Your task to perform on an android device: What is the recent news? Image 0: 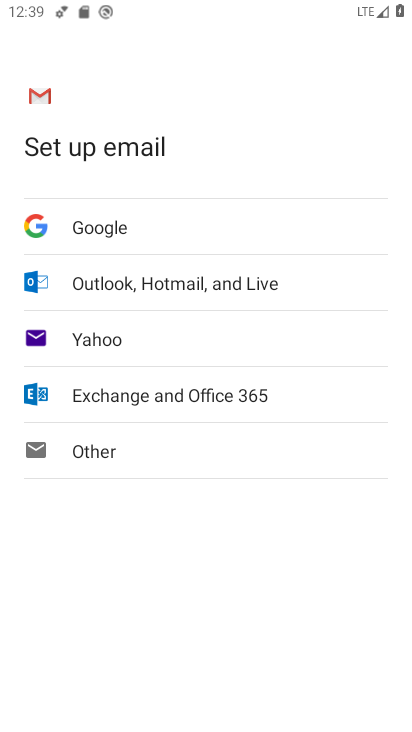
Step 0: press home button
Your task to perform on an android device: What is the recent news? Image 1: 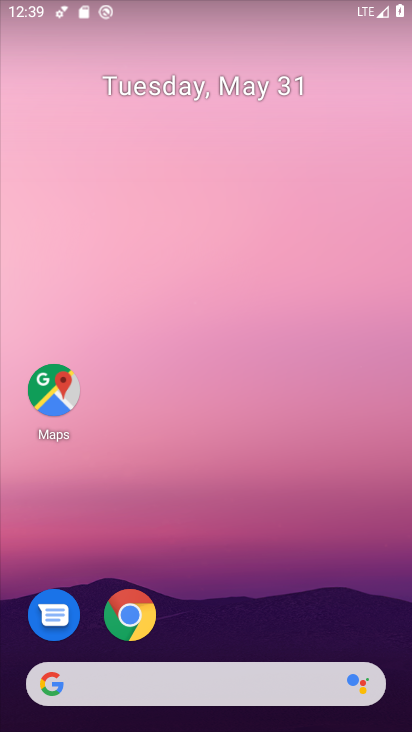
Step 1: drag from (198, 564) to (142, 7)
Your task to perform on an android device: What is the recent news? Image 2: 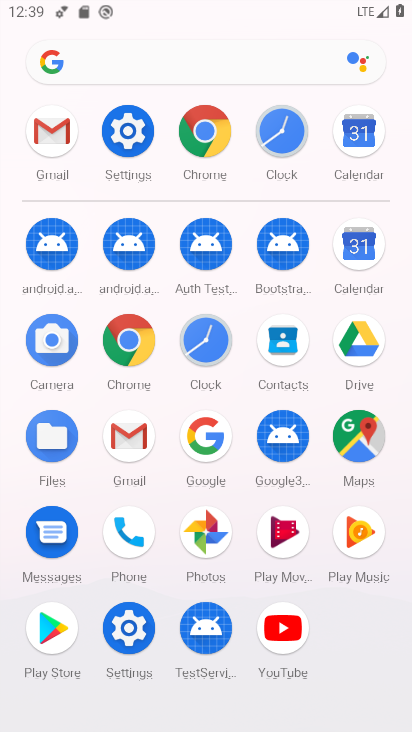
Step 2: click (194, 58)
Your task to perform on an android device: What is the recent news? Image 3: 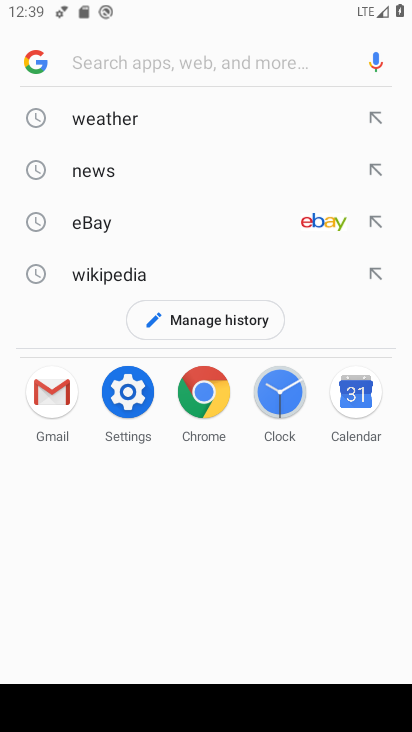
Step 3: type "recent news"
Your task to perform on an android device: What is the recent news? Image 4: 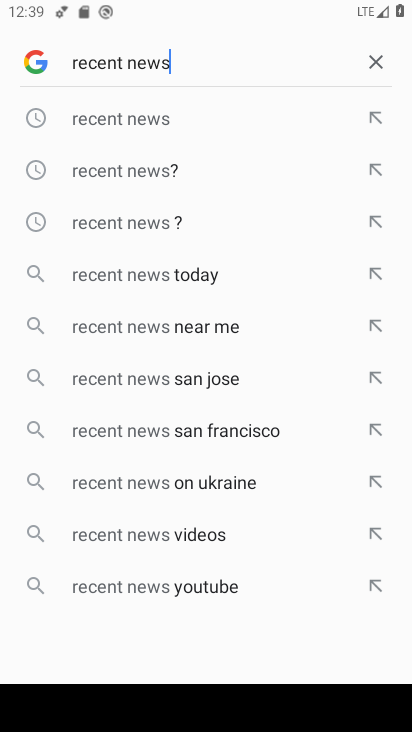
Step 4: click (185, 178)
Your task to perform on an android device: What is the recent news? Image 5: 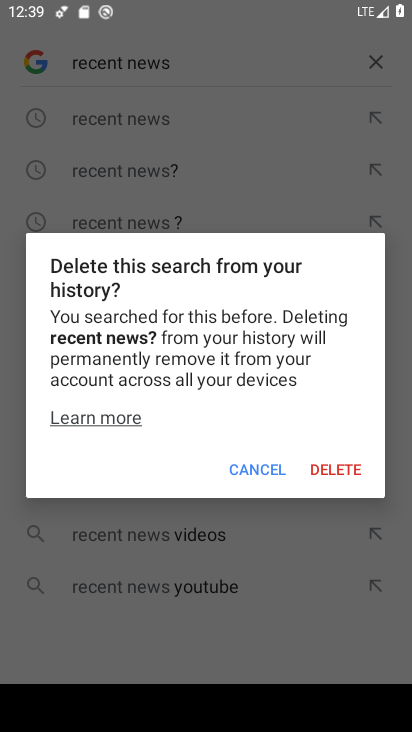
Step 5: click (283, 475)
Your task to perform on an android device: What is the recent news? Image 6: 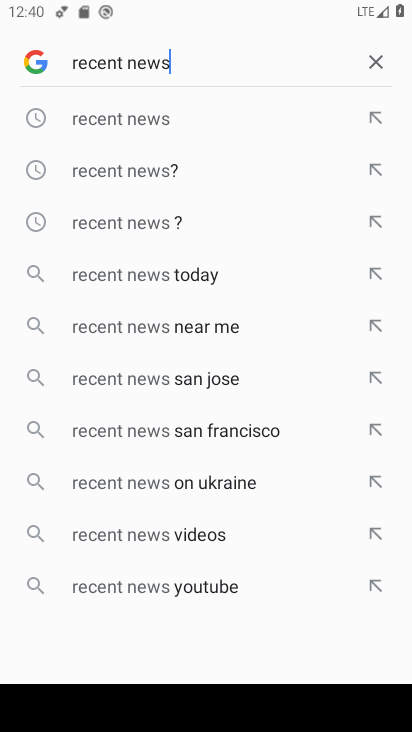
Step 6: click (165, 177)
Your task to perform on an android device: What is the recent news? Image 7: 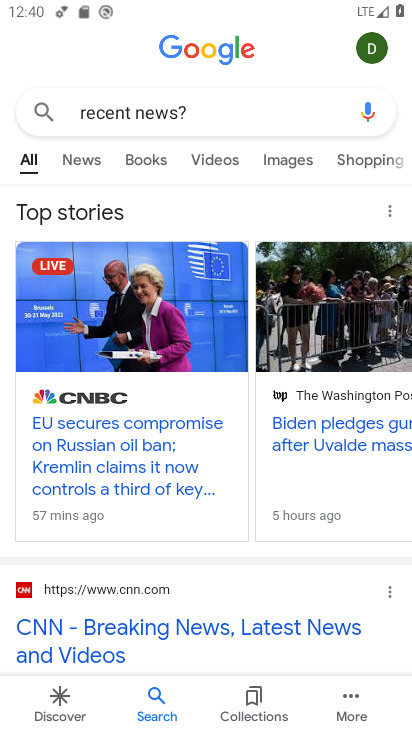
Step 7: task complete